Your task to perform on an android device: snooze an email in the gmail app Image 0: 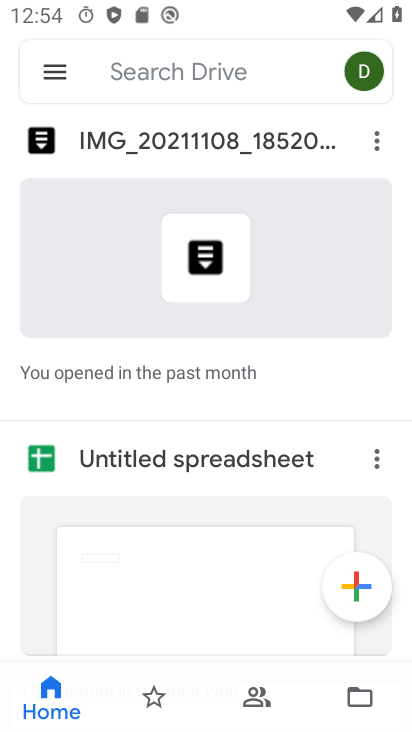
Step 0: press home button
Your task to perform on an android device: snooze an email in the gmail app Image 1: 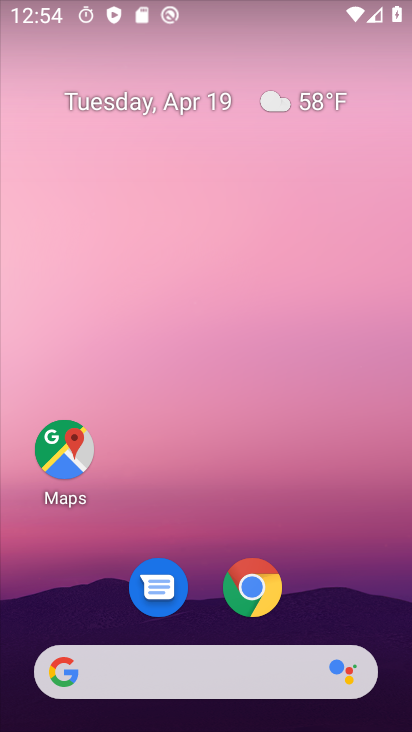
Step 1: drag from (348, 558) to (356, 137)
Your task to perform on an android device: snooze an email in the gmail app Image 2: 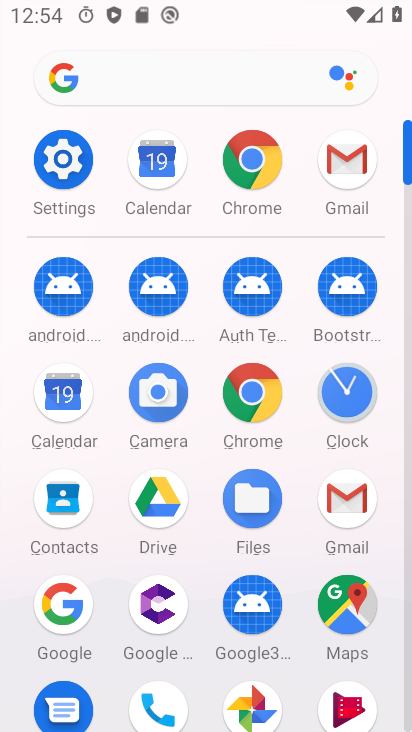
Step 2: click (350, 504)
Your task to perform on an android device: snooze an email in the gmail app Image 3: 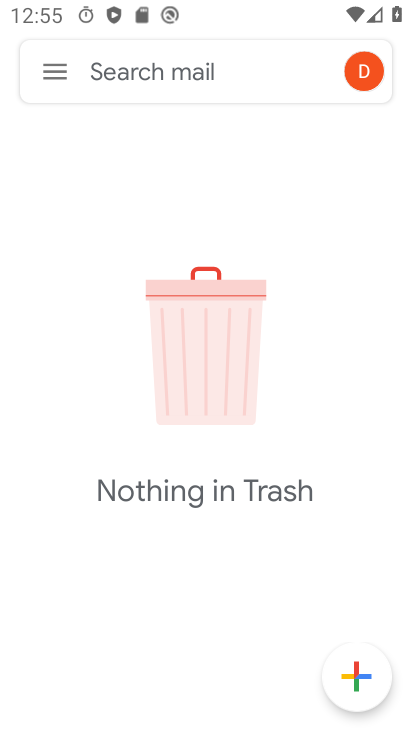
Step 3: task complete